Your task to perform on an android device: Open display settings Image 0: 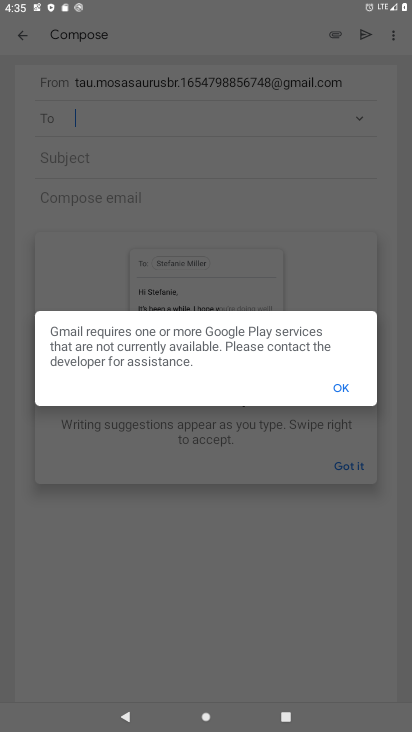
Step 0: press home button
Your task to perform on an android device: Open display settings Image 1: 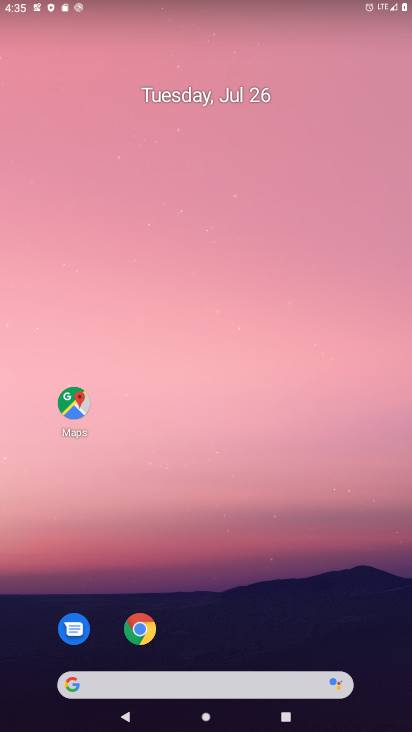
Step 1: drag from (236, 613) to (234, 204)
Your task to perform on an android device: Open display settings Image 2: 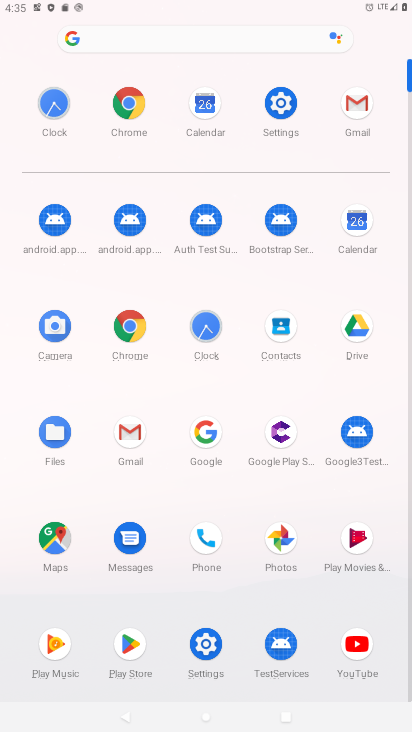
Step 2: click (280, 107)
Your task to perform on an android device: Open display settings Image 3: 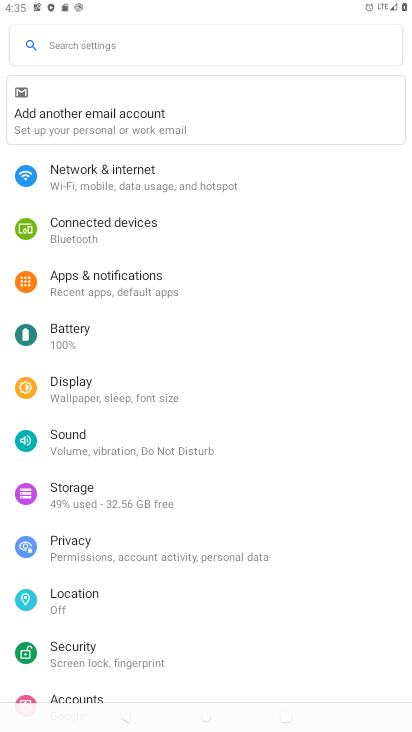
Step 3: click (69, 385)
Your task to perform on an android device: Open display settings Image 4: 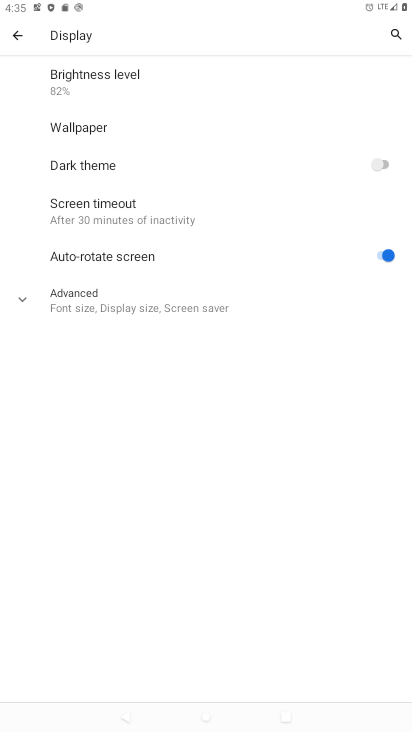
Step 4: task complete